Your task to perform on an android device: Turn off the flashlight Image 0: 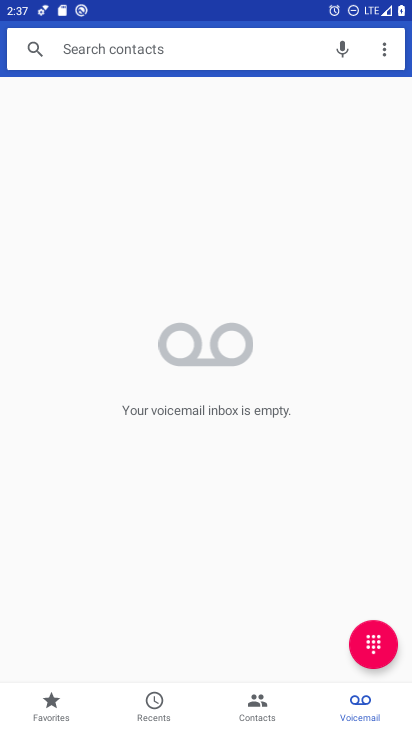
Step 0: press home button
Your task to perform on an android device: Turn off the flashlight Image 1: 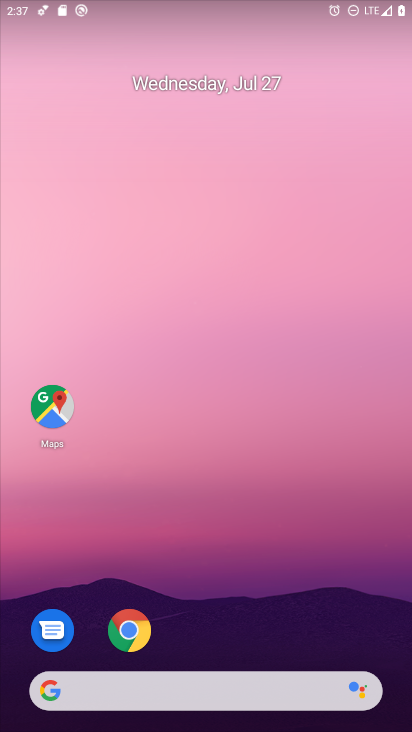
Step 1: click (202, 22)
Your task to perform on an android device: Turn off the flashlight Image 2: 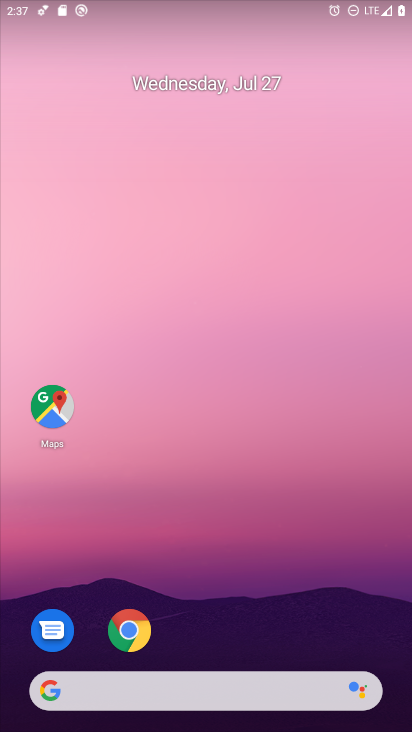
Step 2: drag from (204, 15) to (198, 556)
Your task to perform on an android device: Turn off the flashlight Image 3: 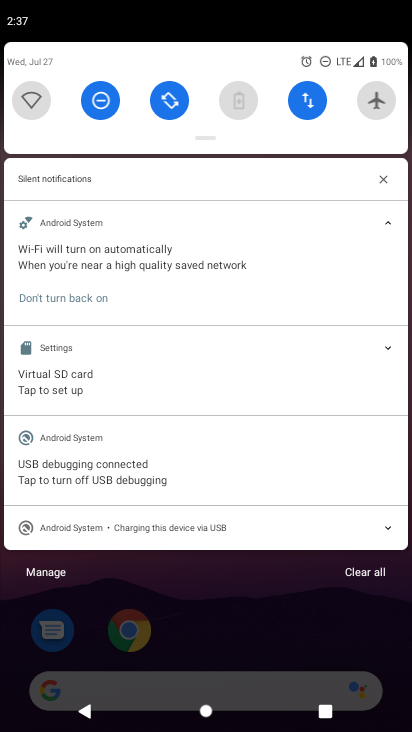
Step 3: drag from (208, 142) to (209, 342)
Your task to perform on an android device: Turn off the flashlight Image 4: 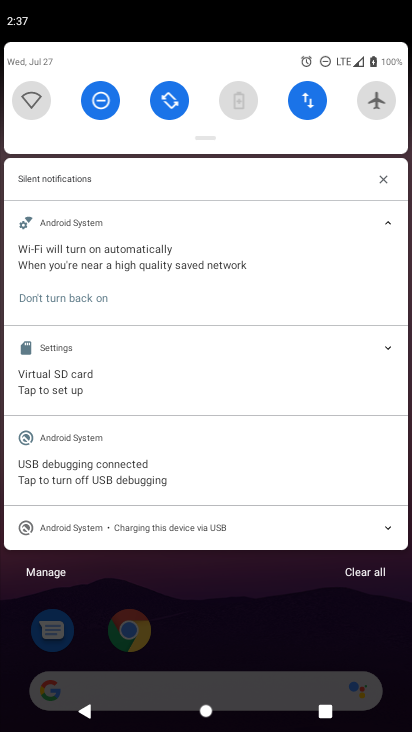
Step 4: drag from (213, 142) to (210, 380)
Your task to perform on an android device: Turn off the flashlight Image 5: 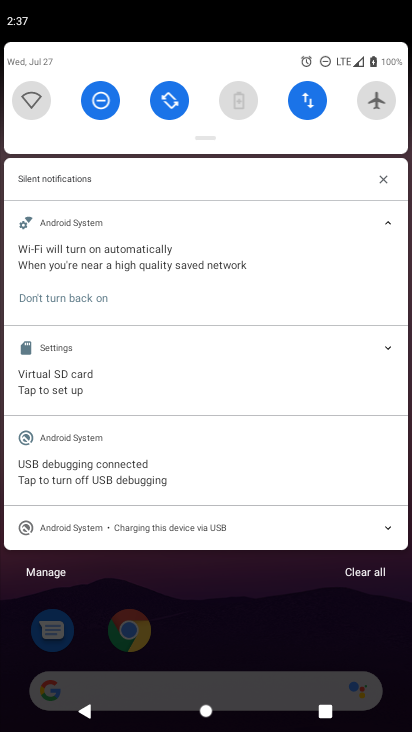
Step 5: drag from (198, 136) to (207, 423)
Your task to perform on an android device: Turn off the flashlight Image 6: 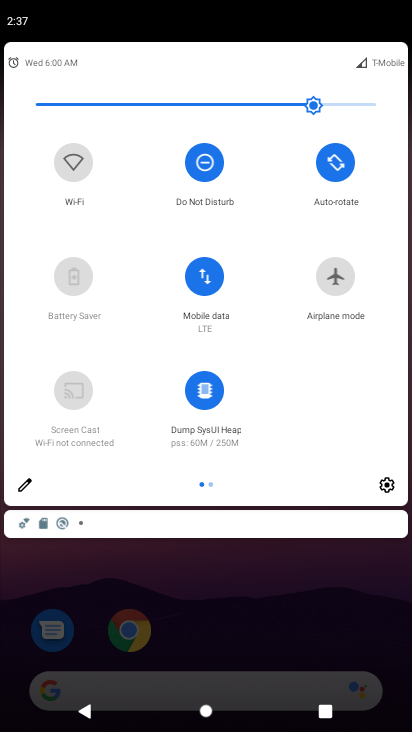
Step 6: click (24, 488)
Your task to perform on an android device: Turn off the flashlight Image 7: 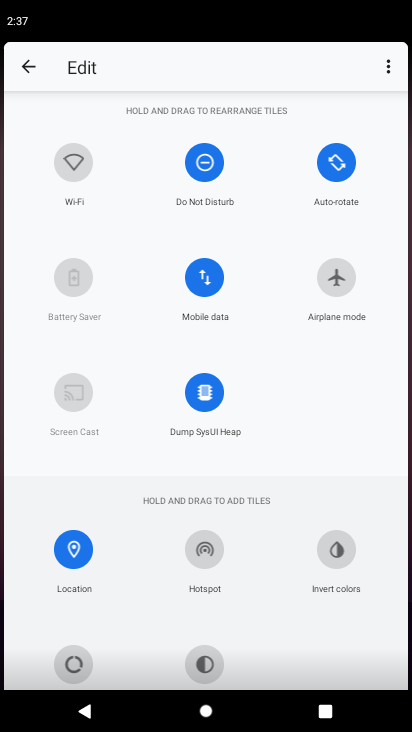
Step 7: task complete